Your task to perform on an android device: turn notification dots off Image 0: 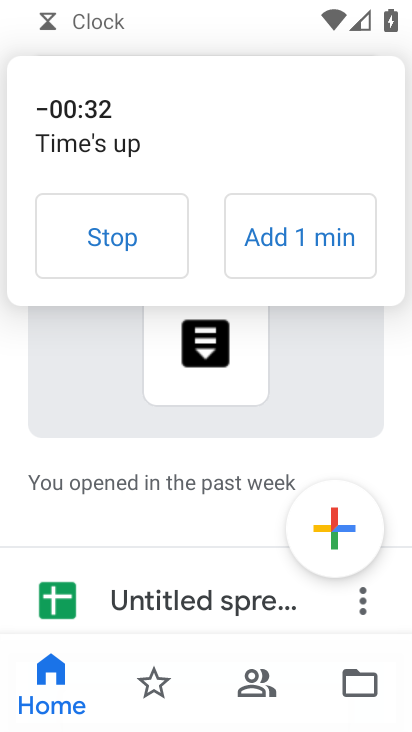
Step 0: press home button
Your task to perform on an android device: turn notification dots off Image 1: 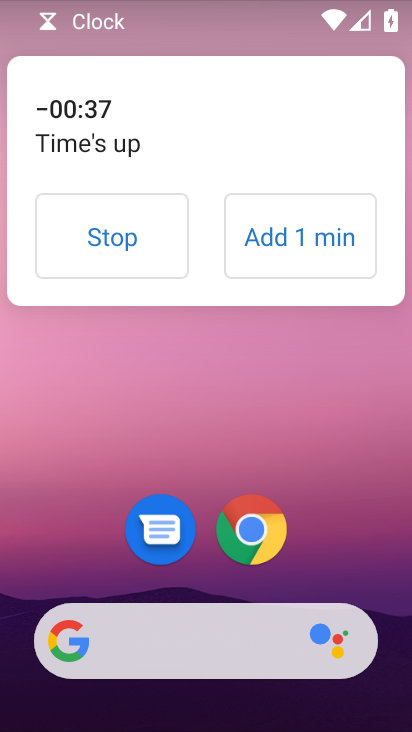
Step 1: click (146, 247)
Your task to perform on an android device: turn notification dots off Image 2: 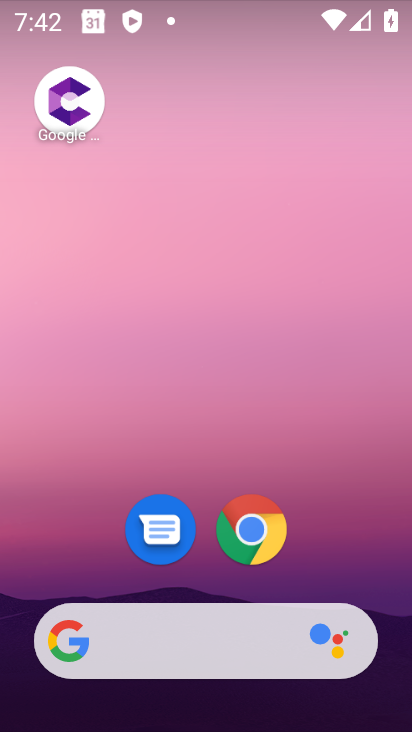
Step 2: drag from (378, 652) to (352, 61)
Your task to perform on an android device: turn notification dots off Image 3: 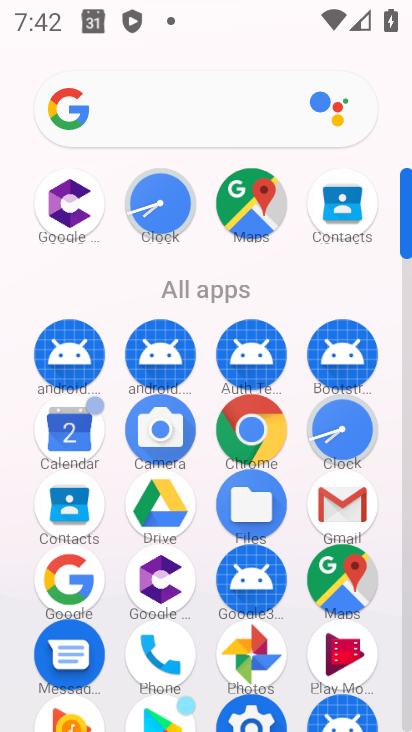
Step 3: click (252, 715)
Your task to perform on an android device: turn notification dots off Image 4: 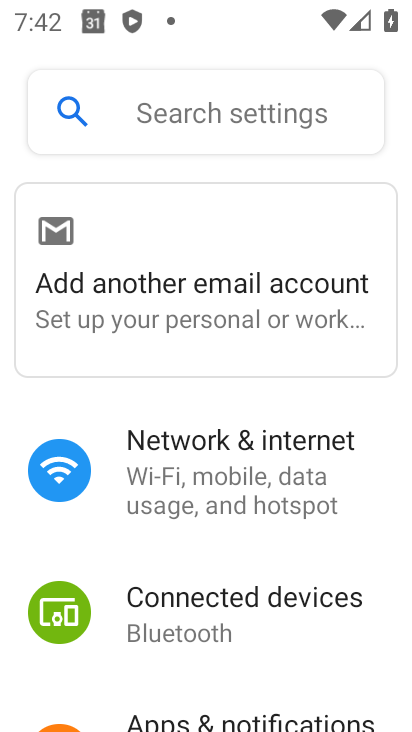
Step 4: click (244, 717)
Your task to perform on an android device: turn notification dots off Image 5: 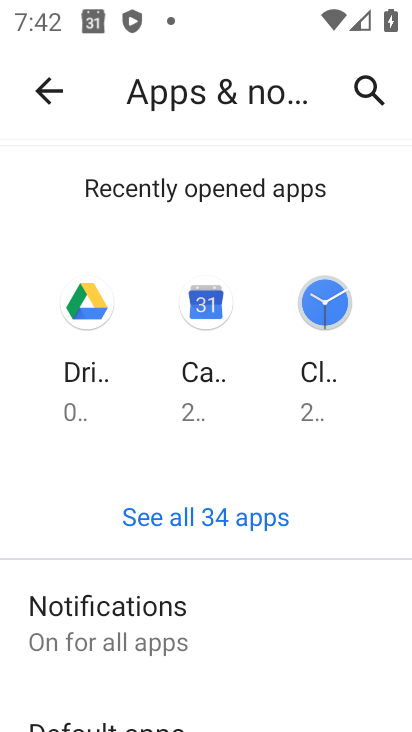
Step 5: click (137, 607)
Your task to perform on an android device: turn notification dots off Image 6: 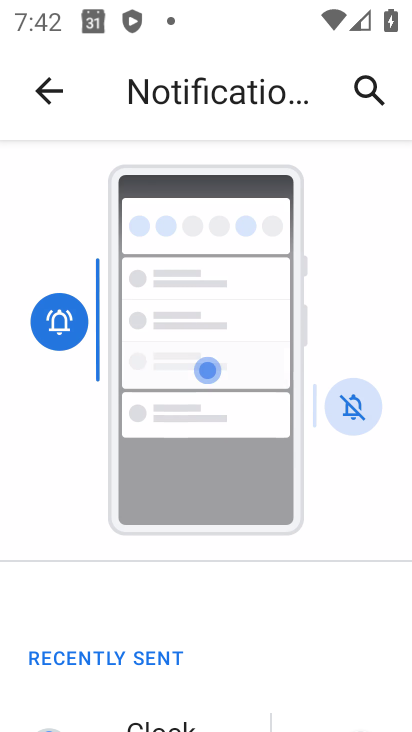
Step 6: drag from (243, 665) to (248, 348)
Your task to perform on an android device: turn notification dots off Image 7: 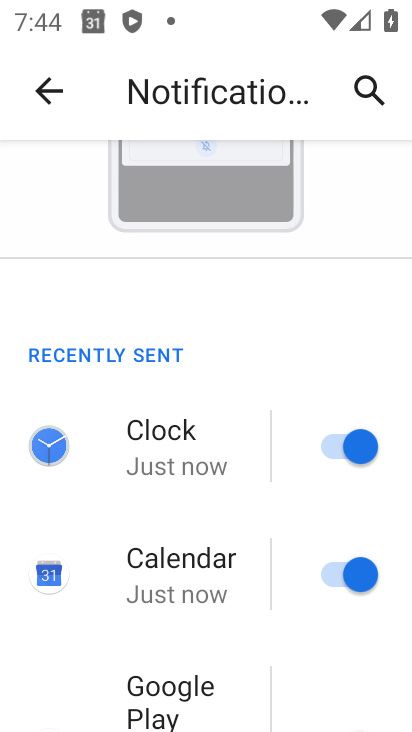
Step 7: drag from (232, 644) to (182, 260)
Your task to perform on an android device: turn notification dots off Image 8: 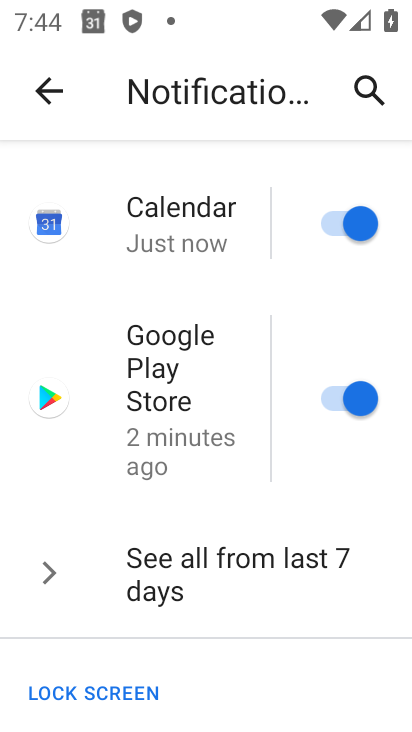
Step 8: drag from (224, 686) to (212, 310)
Your task to perform on an android device: turn notification dots off Image 9: 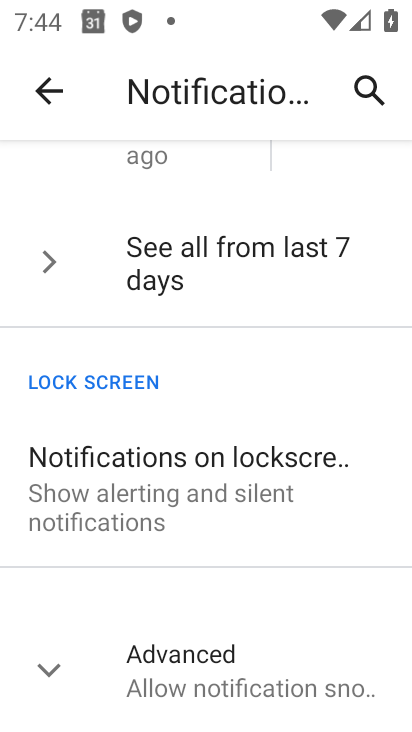
Step 9: click (66, 675)
Your task to perform on an android device: turn notification dots off Image 10: 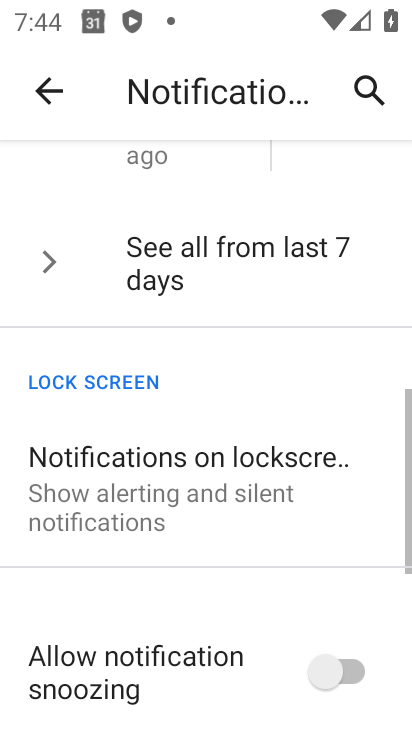
Step 10: drag from (256, 642) to (264, 394)
Your task to perform on an android device: turn notification dots off Image 11: 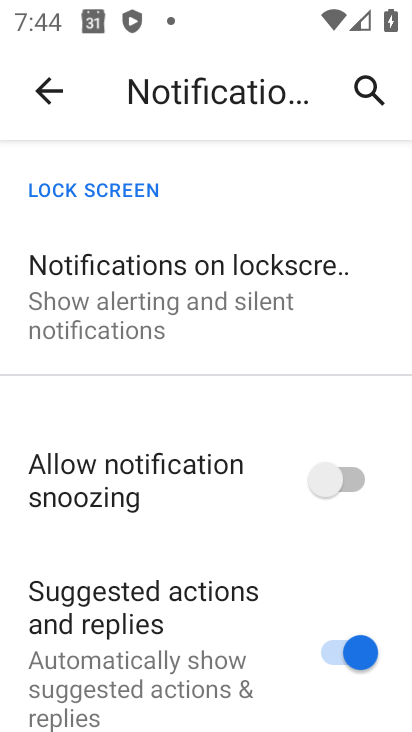
Step 11: drag from (281, 619) to (274, 369)
Your task to perform on an android device: turn notification dots off Image 12: 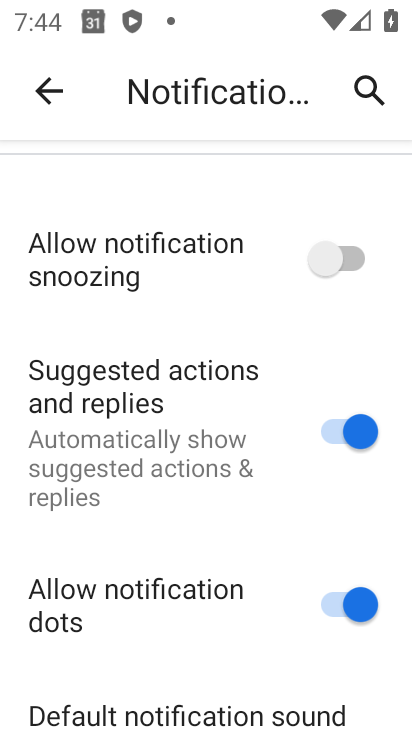
Step 12: click (323, 607)
Your task to perform on an android device: turn notification dots off Image 13: 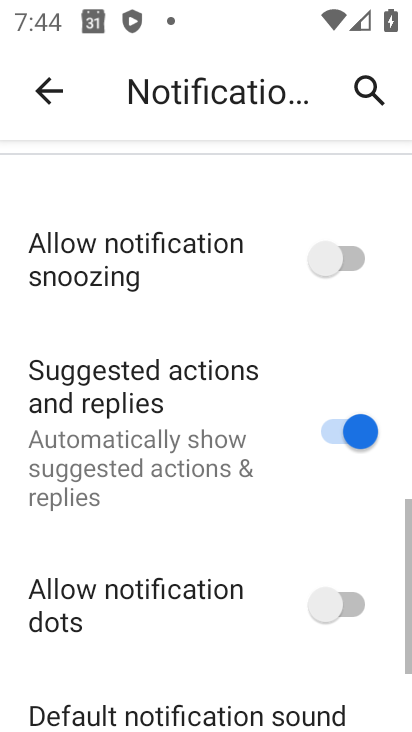
Step 13: task complete